Your task to perform on an android device: delete location history Image 0: 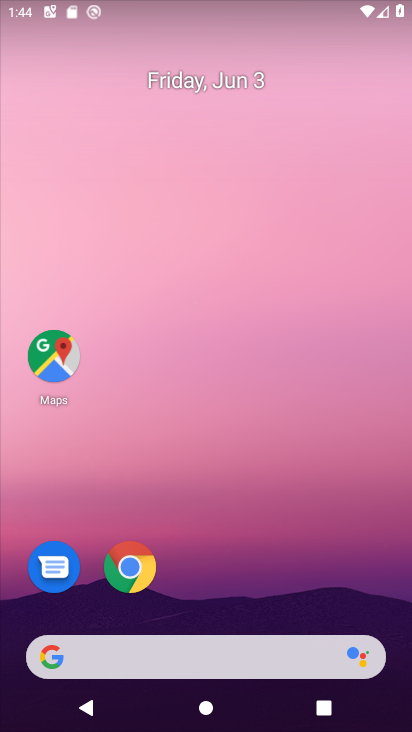
Step 0: drag from (218, 596) to (242, 92)
Your task to perform on an android device: delete location history Image 1: 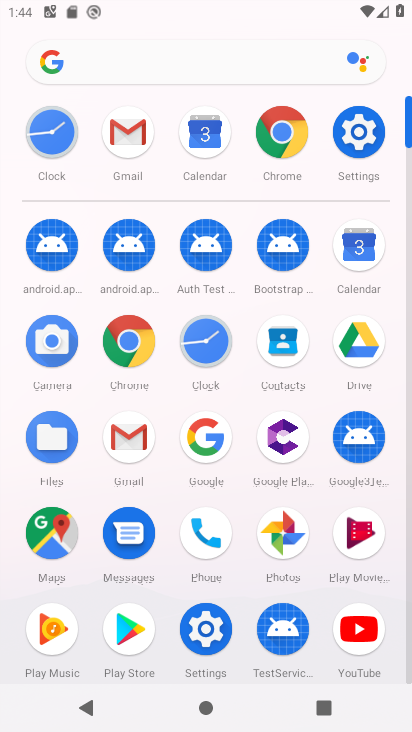
Step 1: click (366, 117)
Your task to perform on an android device: delete location history Image 2: 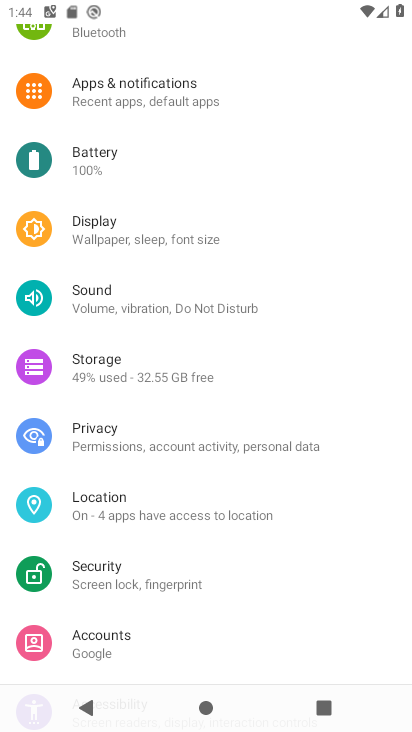
Step 2: click (123, 504)
Your task to perform on an android device: delete location history Image 3: 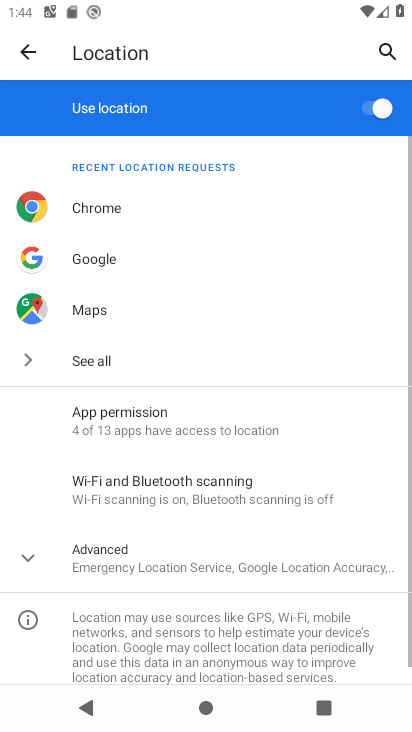
Step 3: press home button
Your task to perform on an android device: delete location history Image 4: 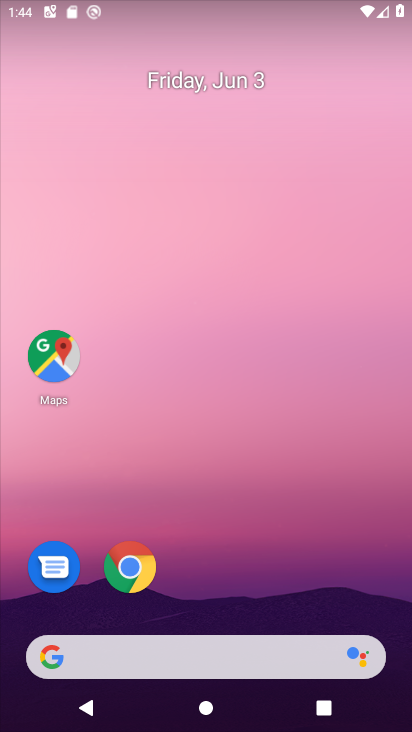
Step 4: click (42, 338)
Your task to perform on an android device: delete location history Image 5: 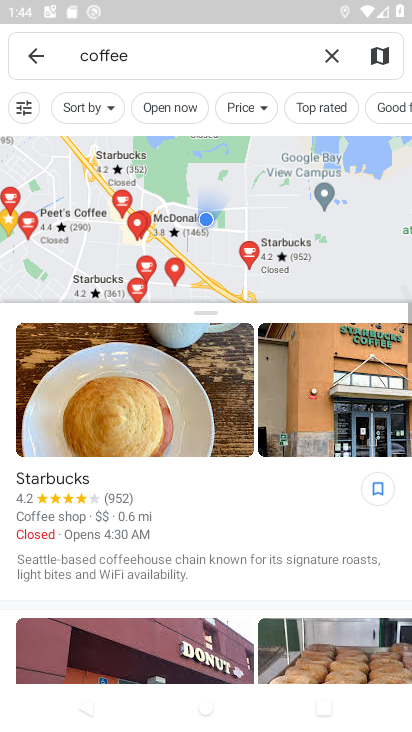
Step 5: click (54, 355)
Your task to perform on an android device: delete location history Image 6: 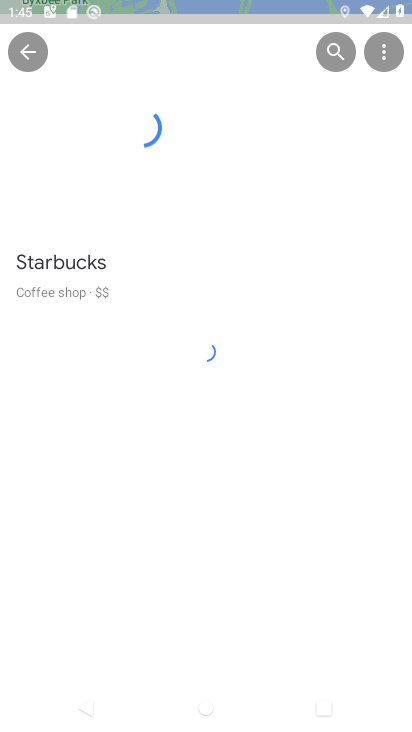
Step 6: click (328, 58)
Your task to perform on an android device: delete location history Image 7: 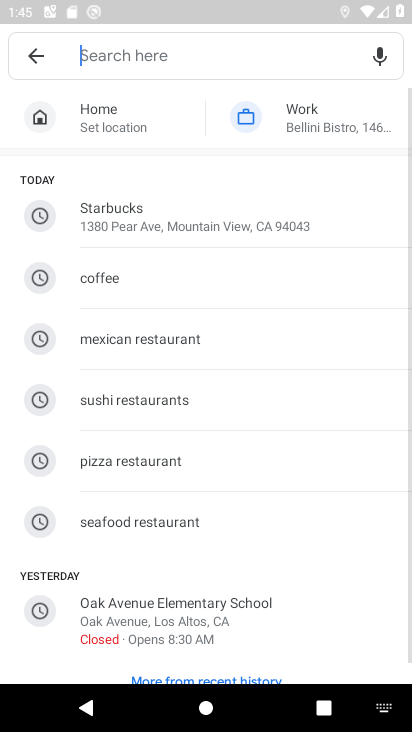
Step 7: click (32, 47)
Your task to perform on an android device: delete location history Image 8: 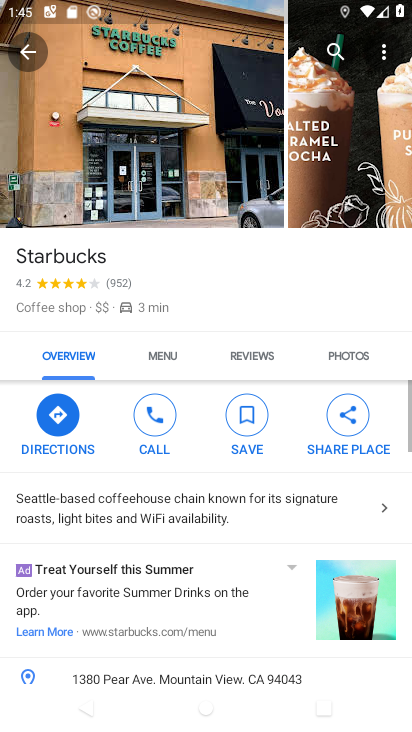
Step 8: click (39, 52)
Your task to perform on an android device: delete location history Image 9: 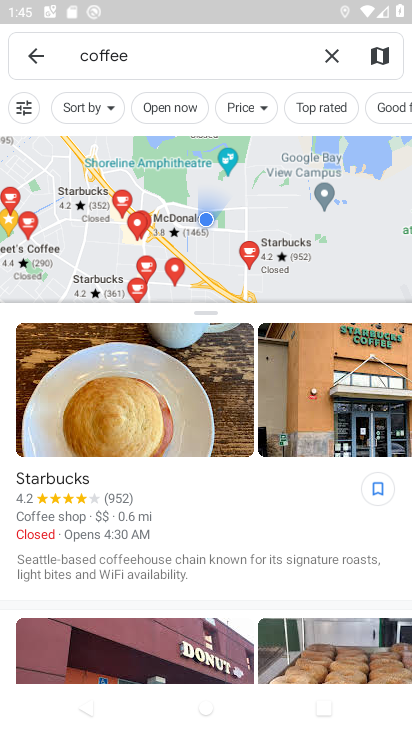
Step 9: click (332, 50)
Your task to perform on an android device: delete location history Image 10: 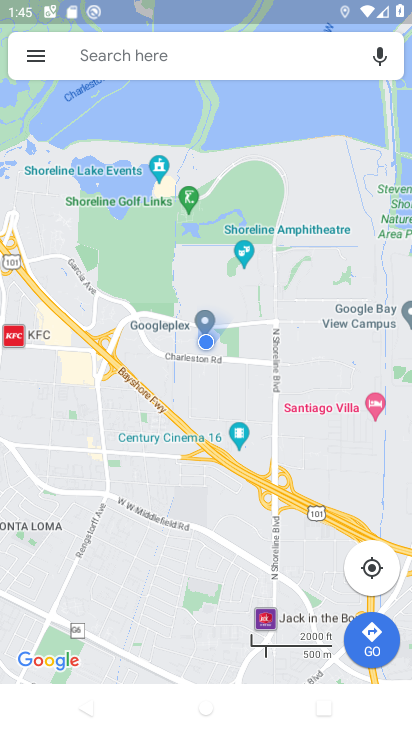
Step 10: click (38, 59)
Your task to perform on an android device: delete location history Image 11: 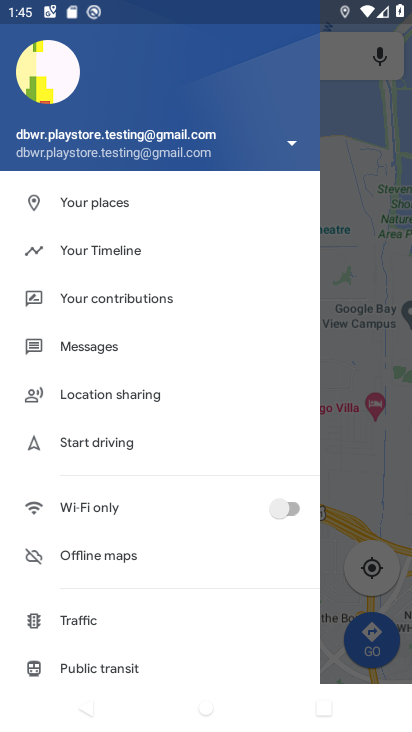
Step 11: click (112, 247)
Your task to perform on an android device: delete location history Image 12: 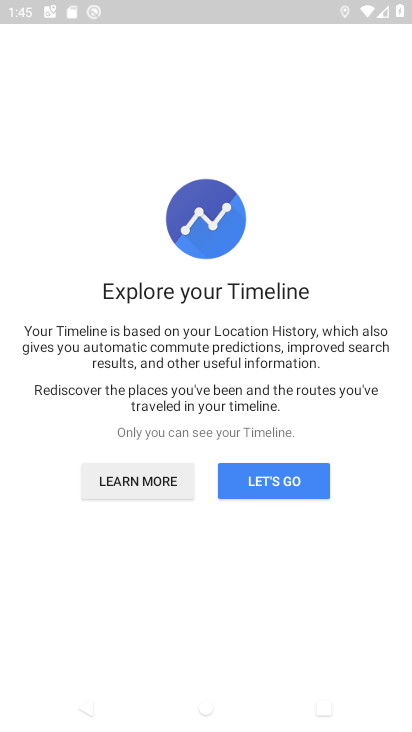
Step 12: click (261, 482)
Your task to perform on an android device: delete location history Image 13: 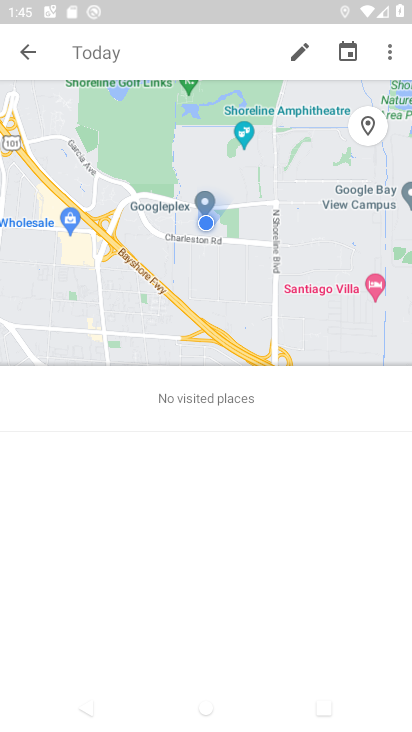
Step 13: click (386, 38)
Your task to perform on an android device: delete location history Image 14: 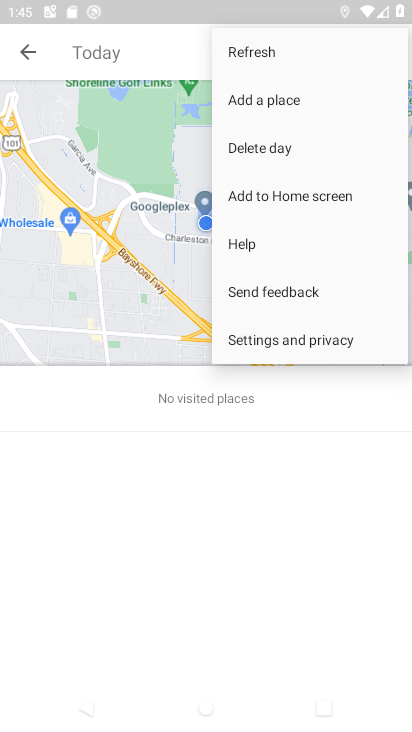
Step 14: click (275, 336)
Your task to perform on an android device: delete location history Image 15: 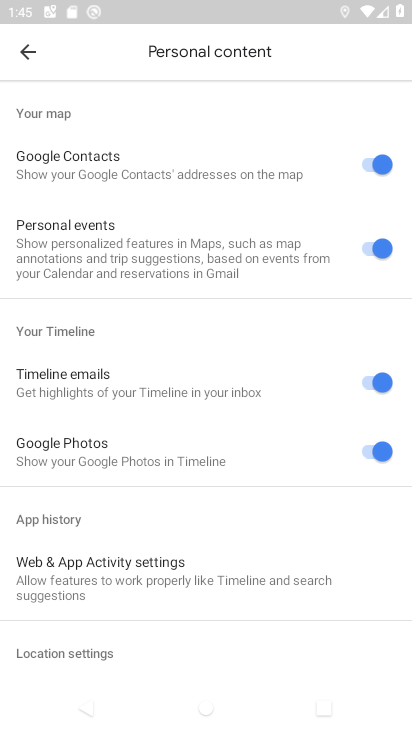
Step 15: drag from (128, 549) to (184, 225)
Your task to perform on an android device: delete location history Image 16: 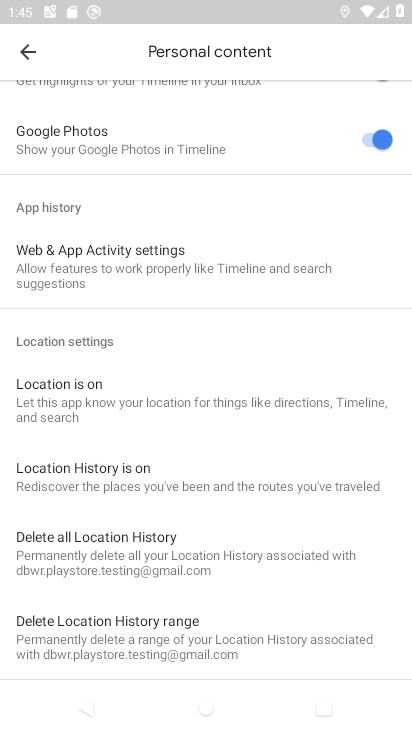
Step 16: click (135, 564)
Your task to perform on an android device: delete location history Image 17: 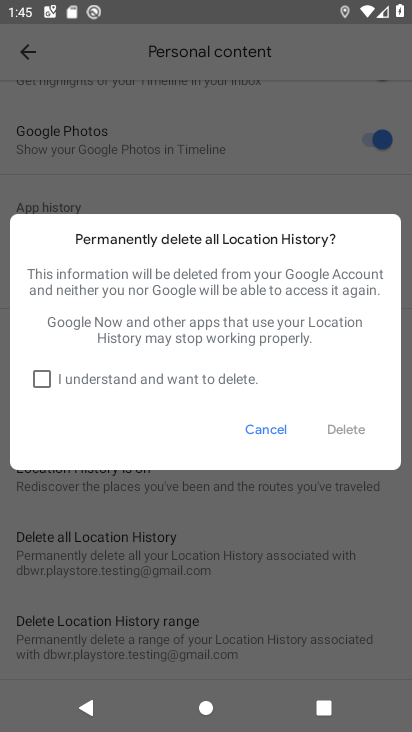
Step 17: click (54, 379)
Your task to perform on an android device: delete location history Image 18: 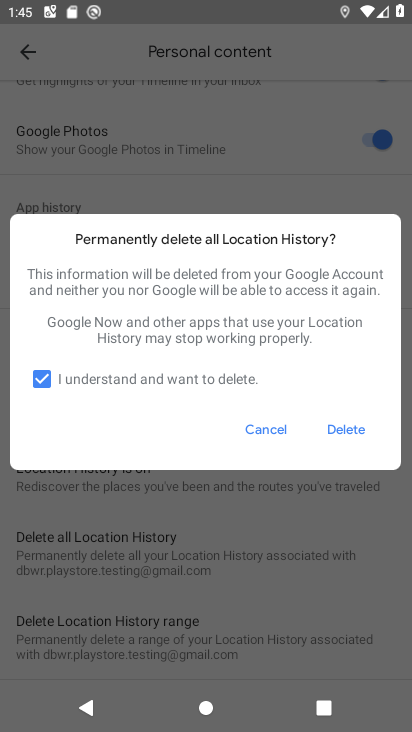
Step 18: click (358, 422)
Your task to perform on an android device: delete location history Image 19: 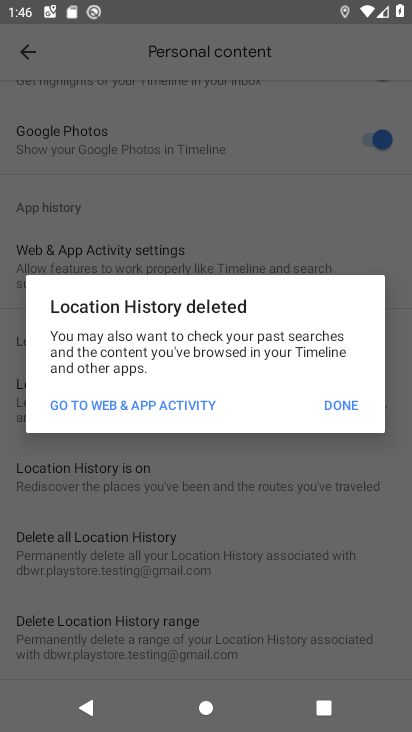
Step 19: click (353, 417)
Your task to perform on an android device: delete location history Image 20: 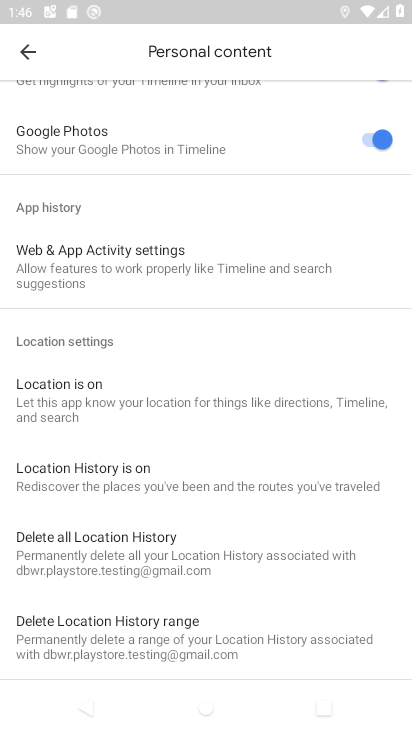
Step 20: task complete